Your task to perform on an android device: check data usage Image 0: 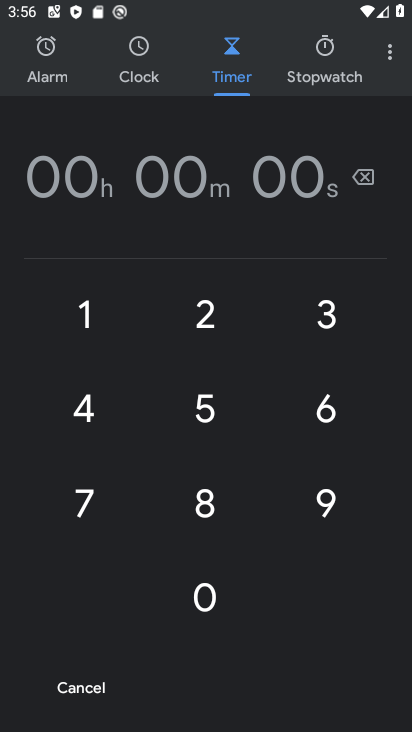
Step 0: press back button
Your task to perform on an android device: check data usage Image 1: 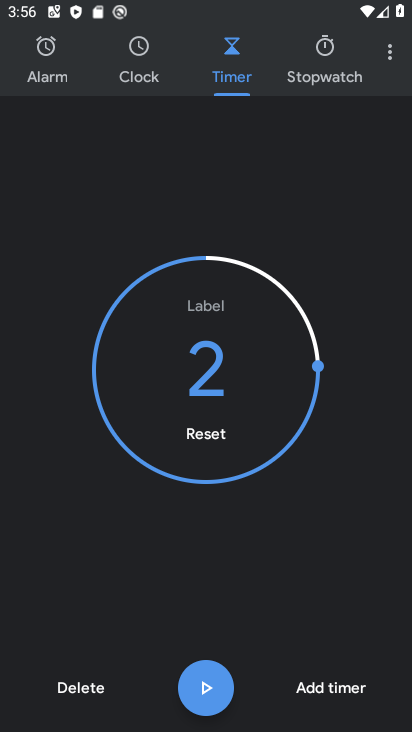
Step 1: press home button
Your task to perform on an android device: check data usage Image 2: 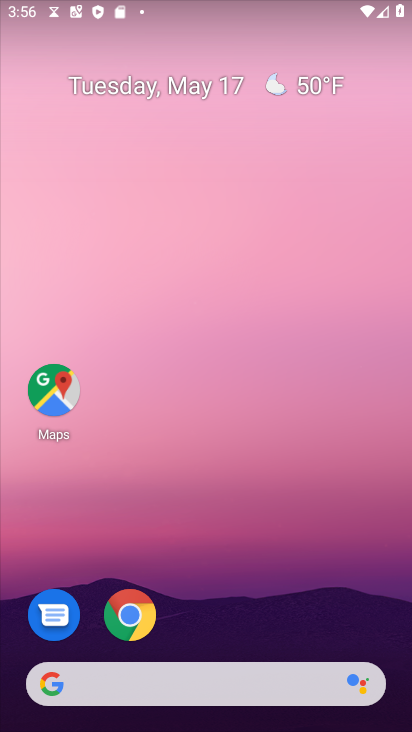
Step 2: drag from (265, 651) to (287, 338)
Your task to perform on an android device: check data usage Image 3: 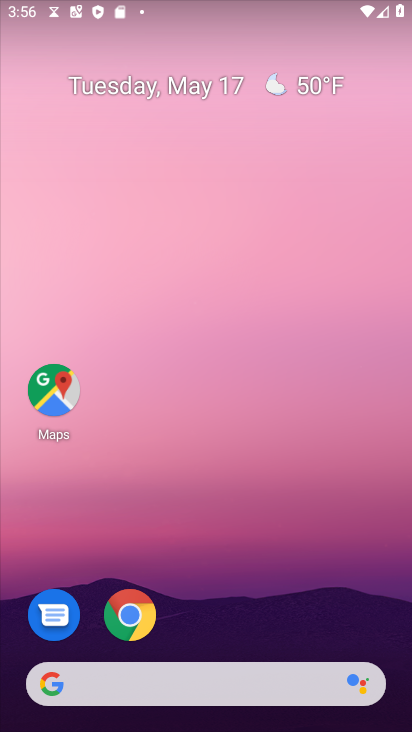
Step 3: drag from (236, 666) to (245, 227)
Your task to perform on an android device: check data usage Image 4: 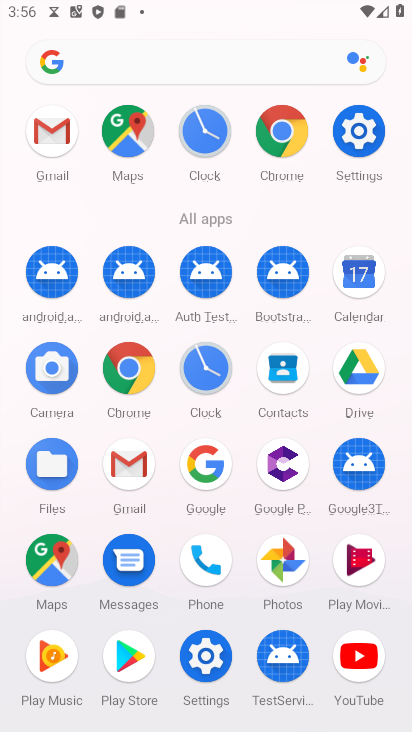
Step 4: click (359, 126)
Your task to perform on an android device: check data usage Image 5: 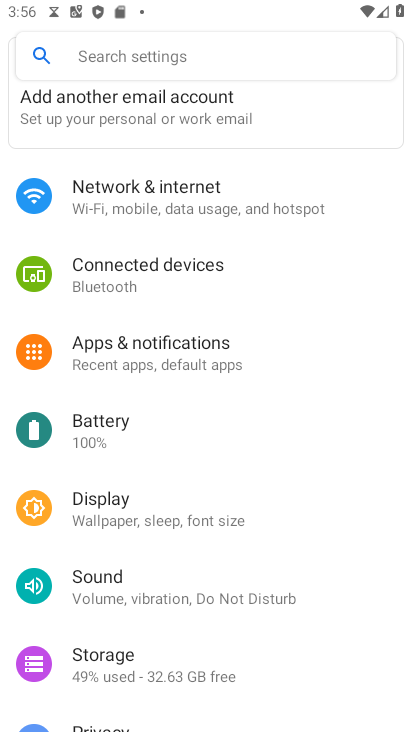
Step 5: click (171, 202)
Your task to perform on an android device: check data usage Image 6: 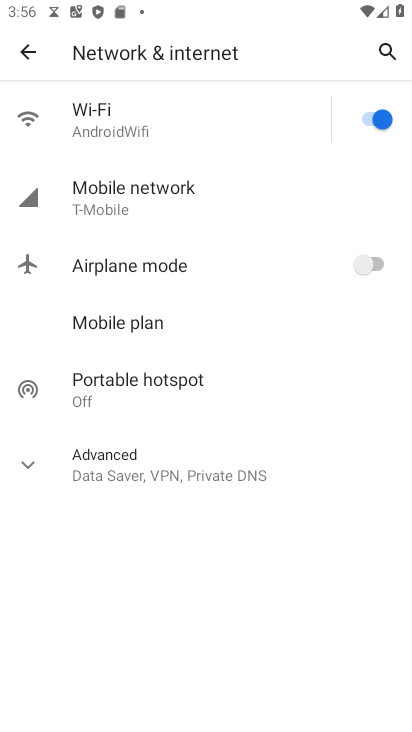
Step 6: click (111, 199)
Your task to perform on an android device: check data usage Image 7: 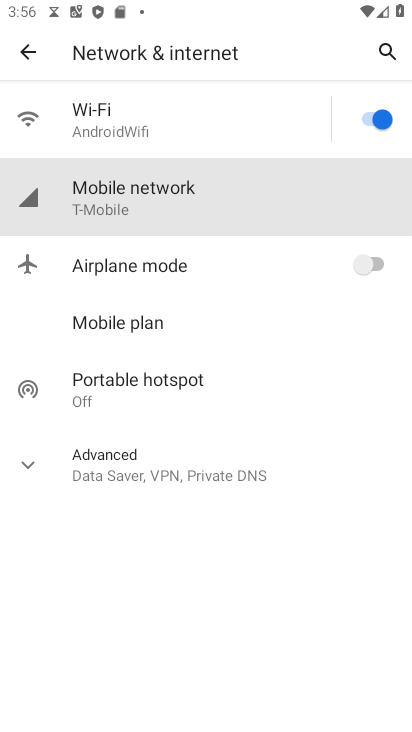
Step 7: click (111, 199)
Your task to perform on an android device: check data usage Image 8: 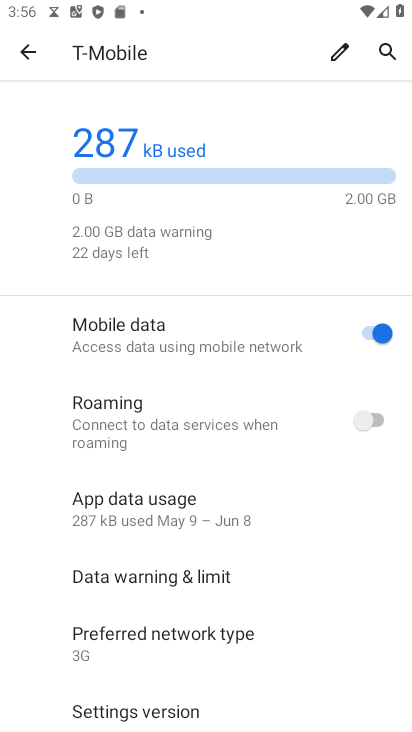
Step 8: task complete